Your task to perform on an android device: Open Chrome and go to settings Image 0: 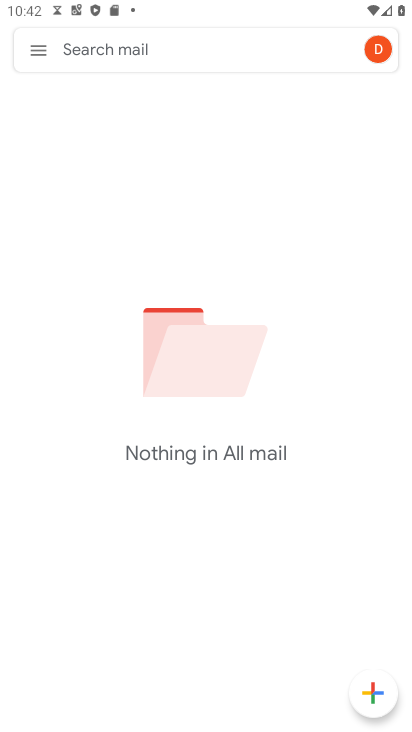
Step 0: press home button
Your task to perform on an android device: Open Chrome and go to settings Image 1: 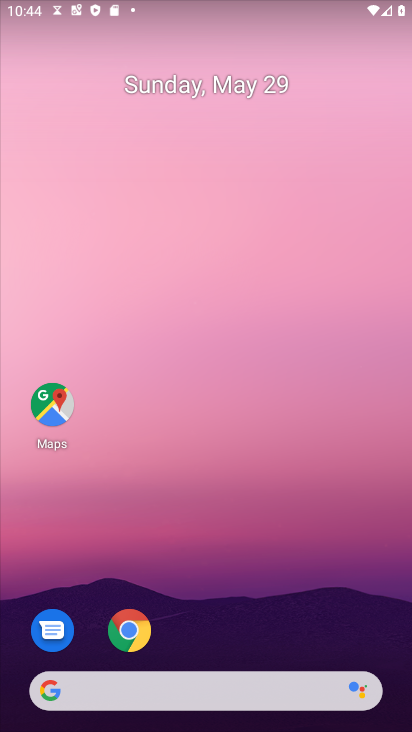
Step 1: click (131, 623)
Your task to perform on an android device: Open Chrome and go to settings Image 2: 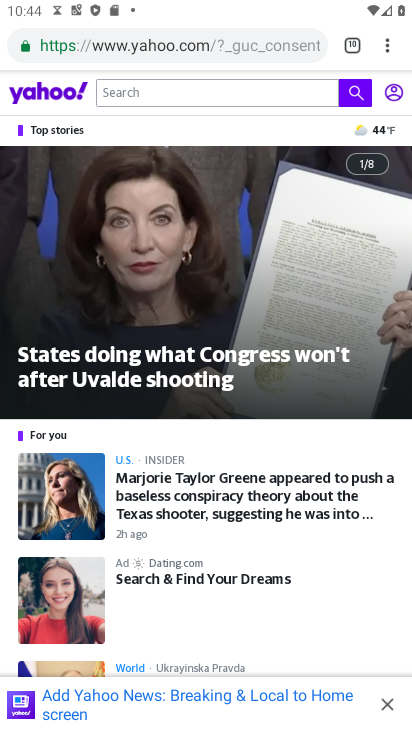
Step 2: click (396, 45)
Your task to perform on an android device: Open Chrome and go to settings Image 3: 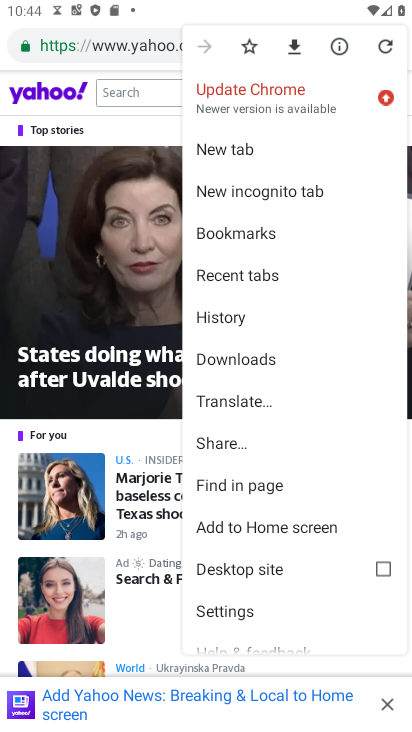
Step 3: click (225, 610)
Your task to perform on an android device: Open Chrome and go to settings Image 4: 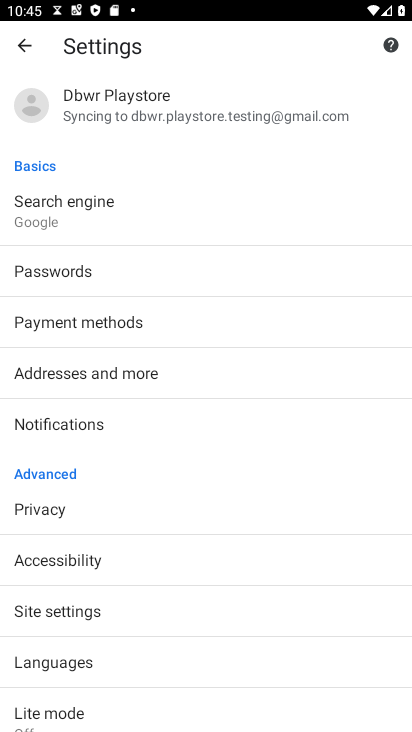
Step 4: task complete